Your task to perform on an android device: add a contact in the contacts app Image 0: 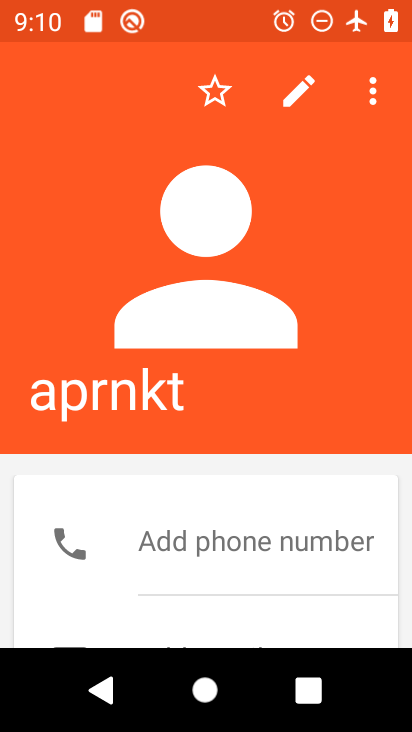
Step 0: press back button
Your task to perform on an android device: add a contact in the contacts app Image 1: 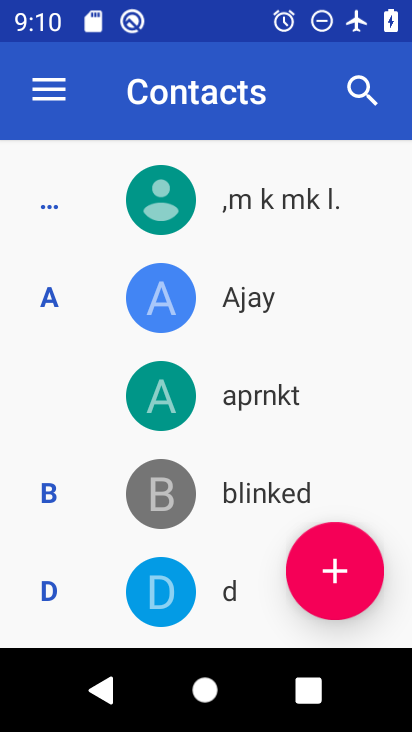
Step 1: click (325, 571)
Your task to perform on an android device: add a contact in the contacts app Image 2: 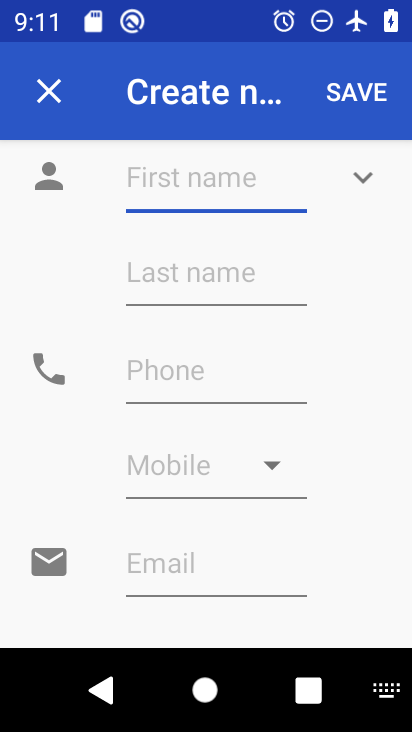
Step 2: type "hvfcfgv"
Your task to perform on an android device: add a contact in the contacts app Image 3: 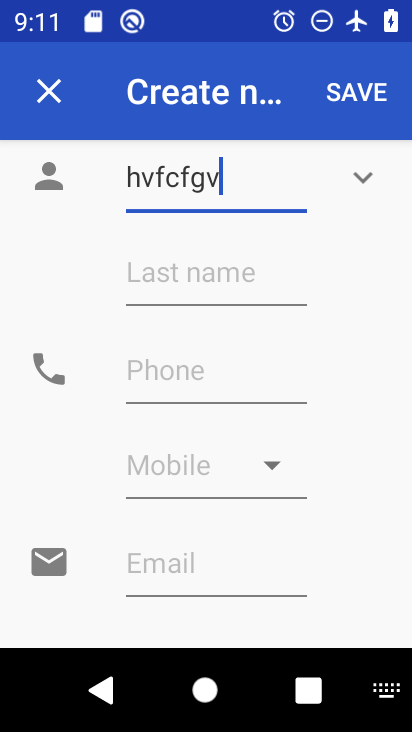
Step 3: click (366, 97)
Your task to perform on an android device: add a contact in the contacts app Image 4: 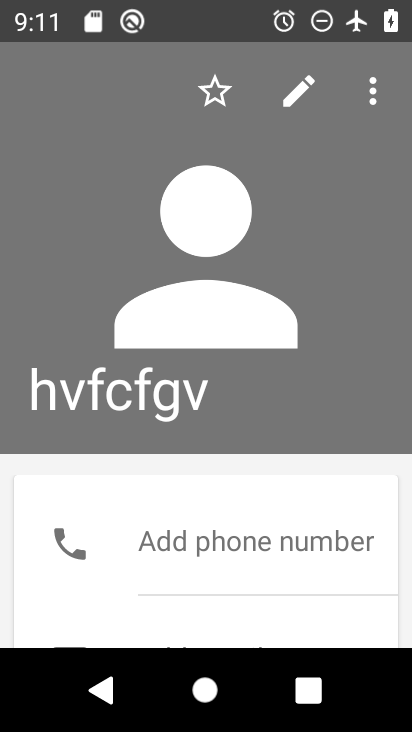
Step 4: task complete